Your task to perform on an android device: Open calendar and show me the fourth week of next month Image 0: 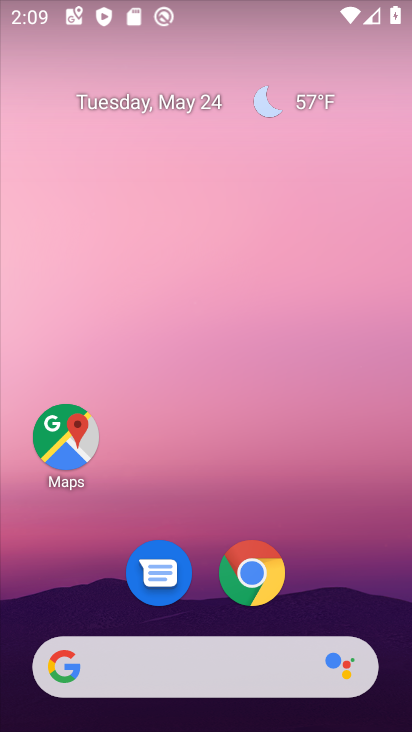
Step 0: drag from (359, 598) to (248, 196)
Your task to perform on an android device: Open calendar and show me the fourth week of next month Image 1: 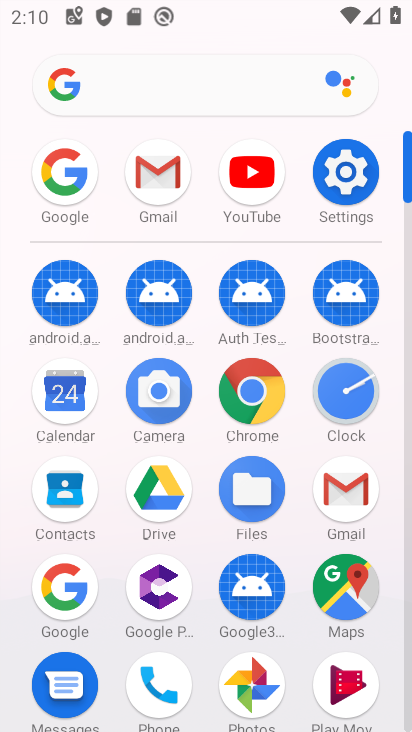
Step 1: click (63, 393)
Your task to perform on an android device: Open calendar and show me the fourth week of next month Image 2: 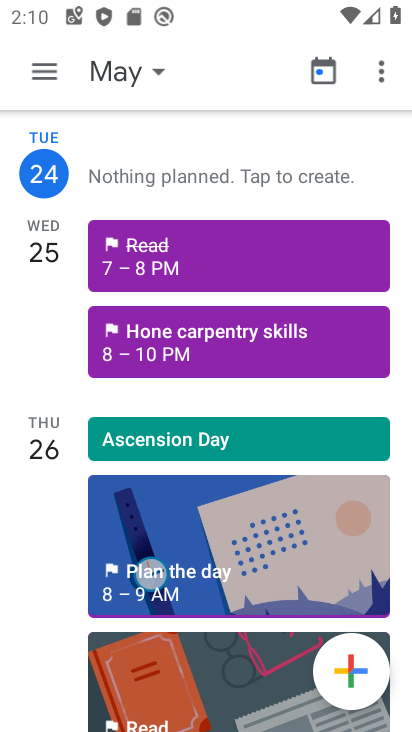
Step 2: click (53, 64)
Your task to perform on an android device: Open calendar and show me the fourth week of next month Image 3: 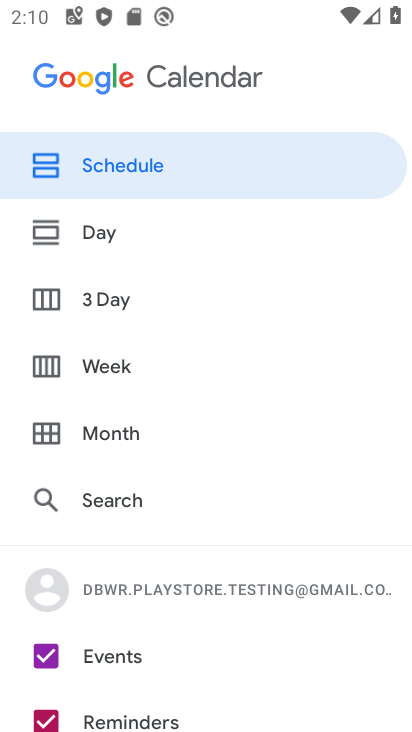
Step 3: click (86, 365)
Your task to perform on an android device: Open calendar and show me the fourth week of next month Image 4: 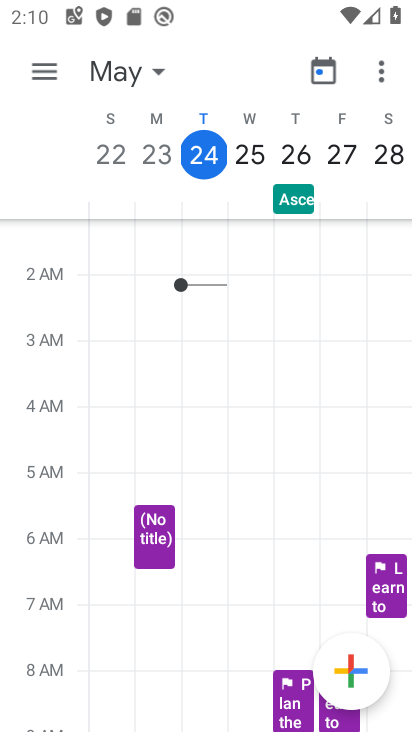
Step 4: click (135, 81)
Your task to perform on an android device: Open calendar and show me the fourth week of next month Image 5: 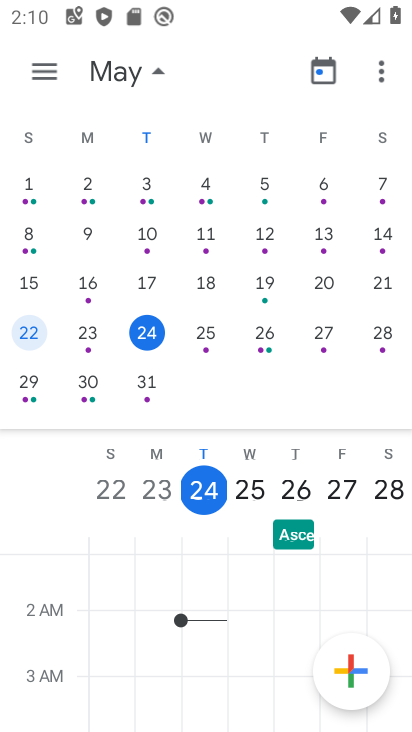
Step 5: drag from (374, 302) to (23, 259)
Your task to perform on an android device: Open calendar and show me the fourth week of next month Image 6: 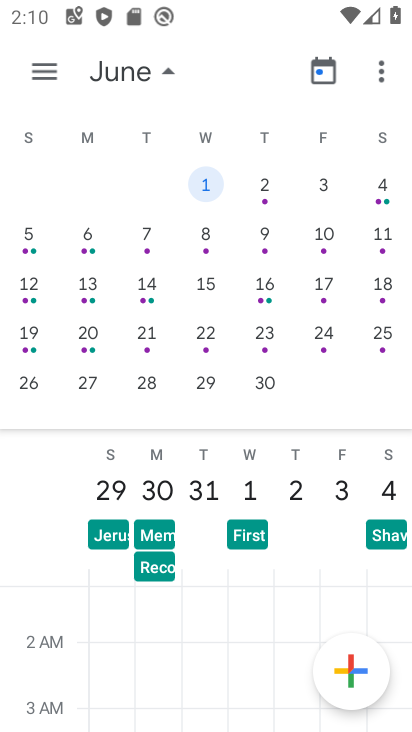
Step 6: click (82, 386)
Your task to perform on an android device: Open calendar and show me the fourth week of next month Image 7: 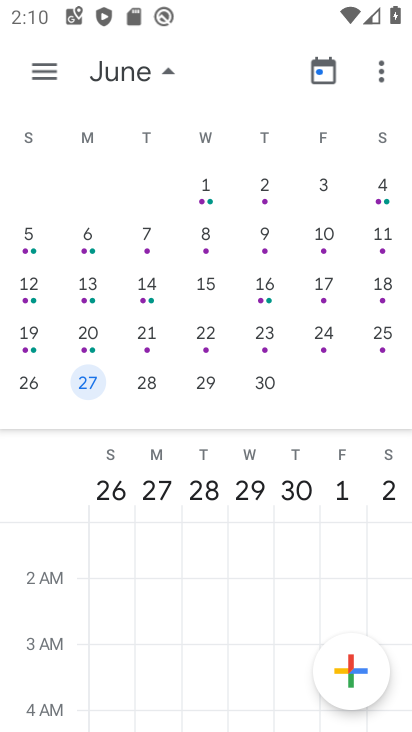
Step 7: task complete